Your task to perform on an android device: turn off priority inbox in the gmail app Image 0: 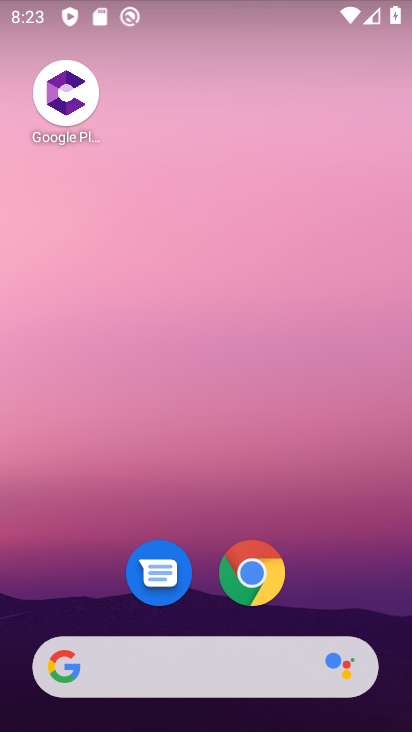
Step 0: drag from (322, 572) to (406, 154)
Your task to perform on an android device: turn off priority inbox in the gmail app Image 1: 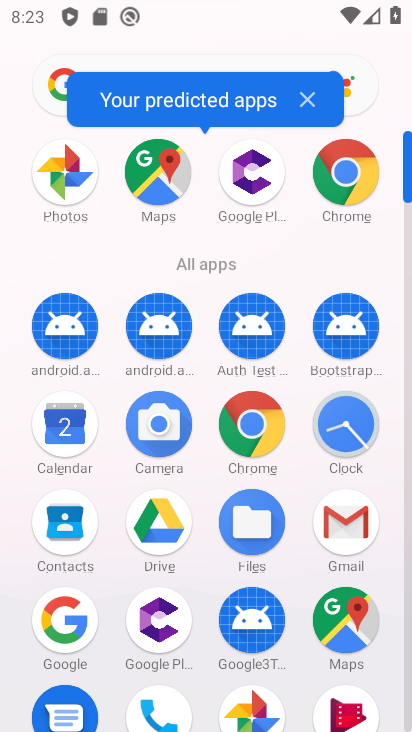
Step 1: click (339, 514)
Your task to perform on an android device: turn off priority inbox in the gmail app Image 2: 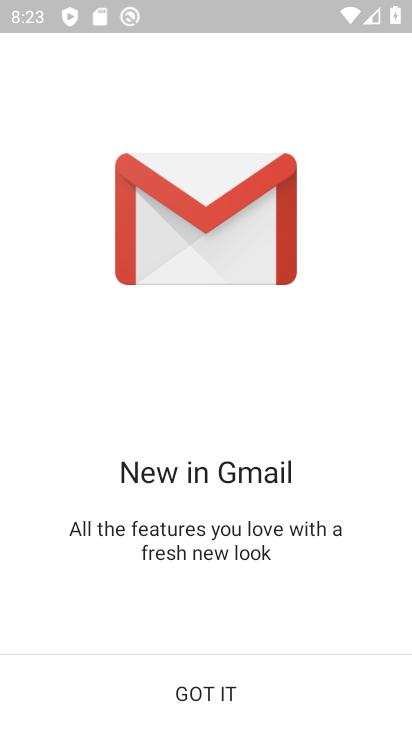
Step 2: click (182, 691)
Your task to perform on an android device: turn off priority inbox in the gmail app Image 3: 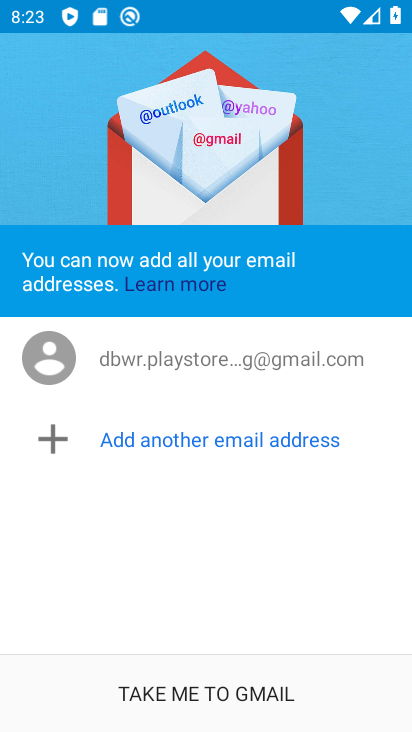
Step 3: click (182, 691)
Your task to perform on an android device: turn off priority inbox in the gmail app Image 4: 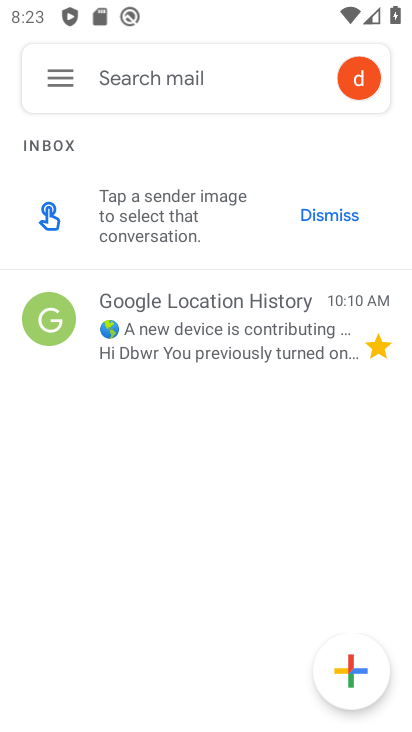
Step 4: click (50, 79)
Your task to perform on an android device: turn off priority inbox in the gmail app Image 5: 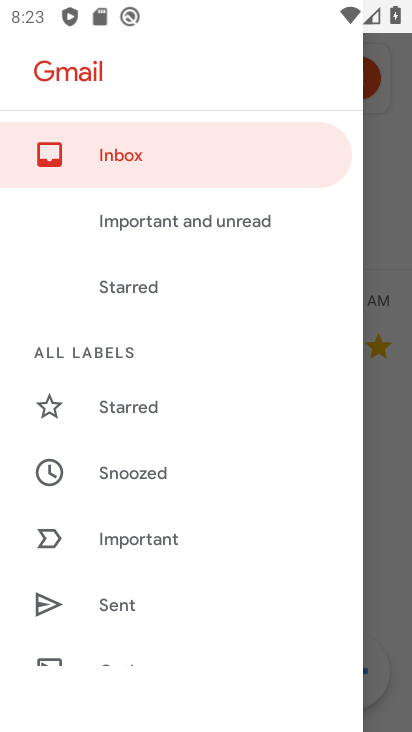
Step 5: drag from (180, 609) to (290, 0)
Your task to perform on an android device: turn off priority inbox in the gmail app Image 6: 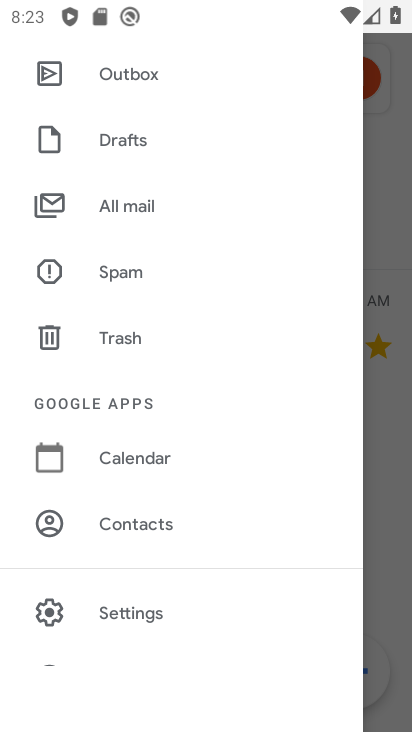
Step 6: click (109, 607)
Your task to perform on an android device: turn off priority inbox in the gmail app Image 7: 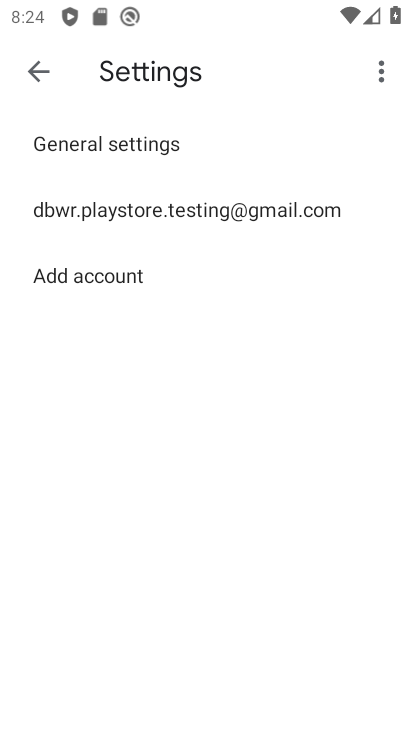
Step 7: click (205, 213)
Your task to perform on an android device: turn off priority inbox in the gmail app Image 8: 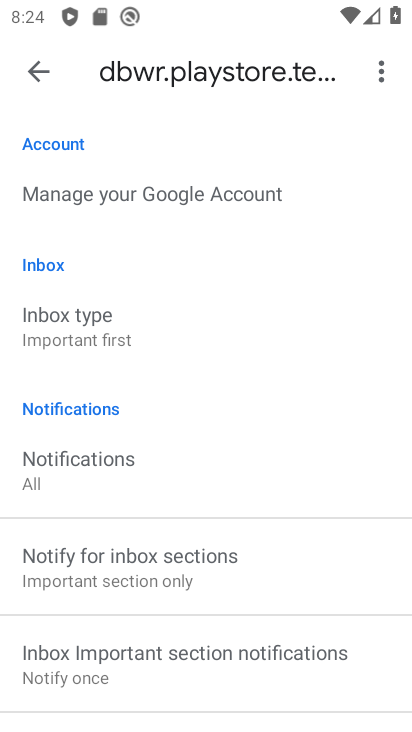
Step 8: drag from (210, 581) to (170, 720)
Your task to perform on an android device: turn off priority inbox in the gmail app Image 9: 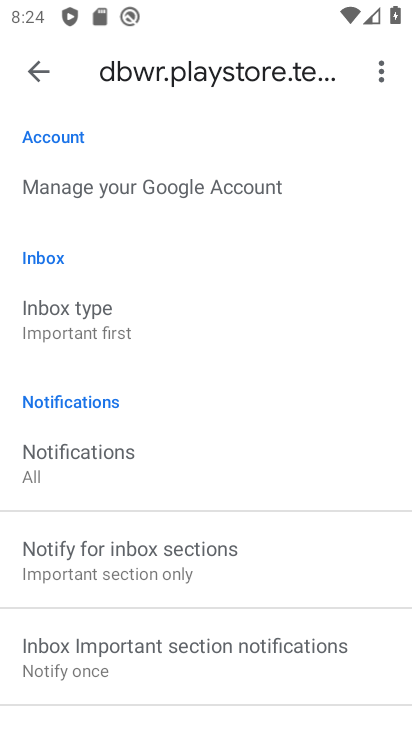
Step 9: click (91, 326)
Your task to perform on an android device: turn off priority inbox in the gmail app Image 10: 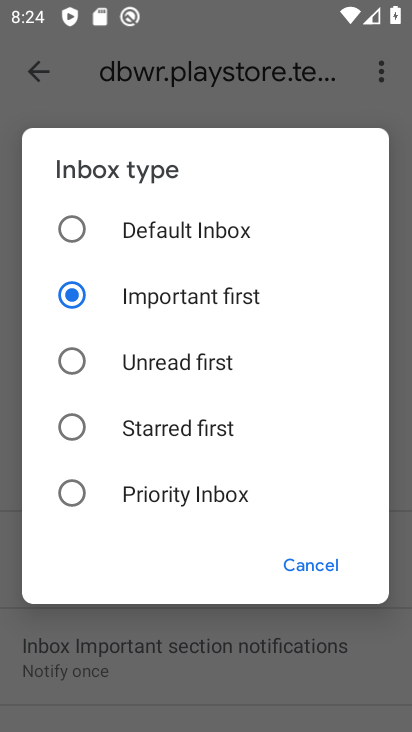
Step 10: task complete